Your task to perform on an android device: Open calendar and show me the second week of next month Image 0: 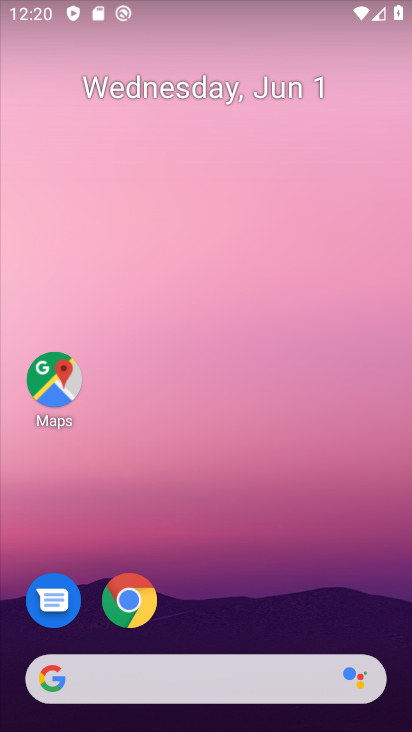
Step 0: press home button
Your task to perform on an android device: Open calendar and show me the second week of next month Image 1: 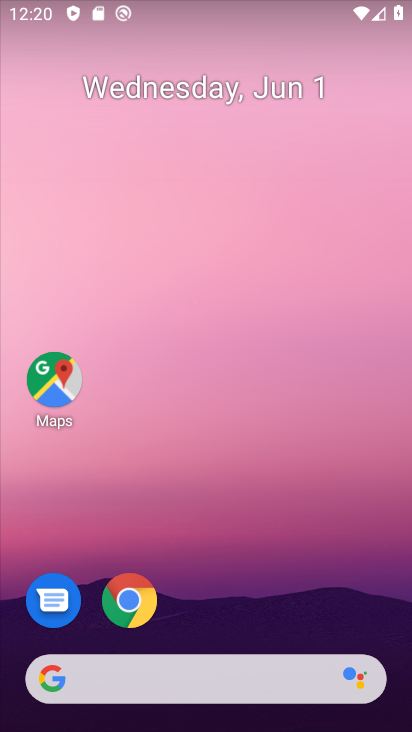
Step 1: drag from (256, 288) to (287, 9)
Your task to perform on an android device: Open calendar and show me the second week of next month Image 2: 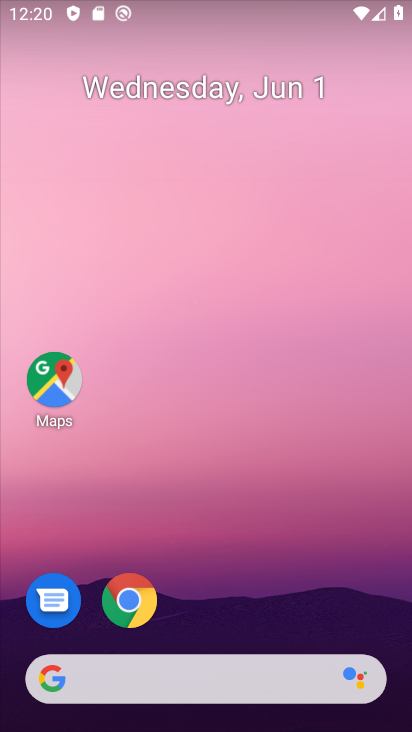
Step 2: drag from (210, 629) to (240, 17)
Your task to perform on an android device: Open calendar and show me the second week of next month Image 3: 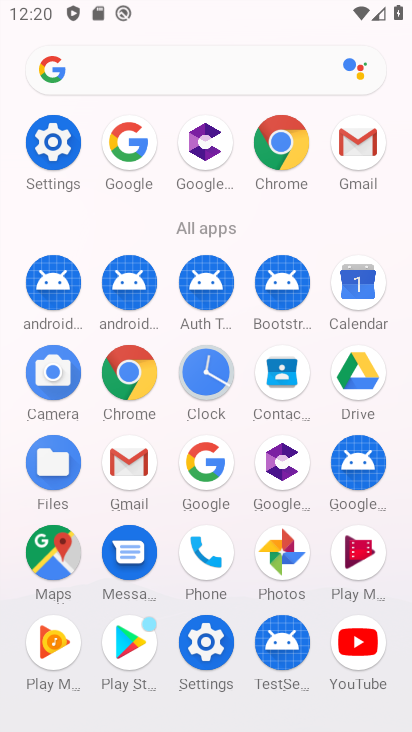
Step 3: click (355, 279)
Your task to perform on an android device: Open calendar and show me the second week of next month Image 4: 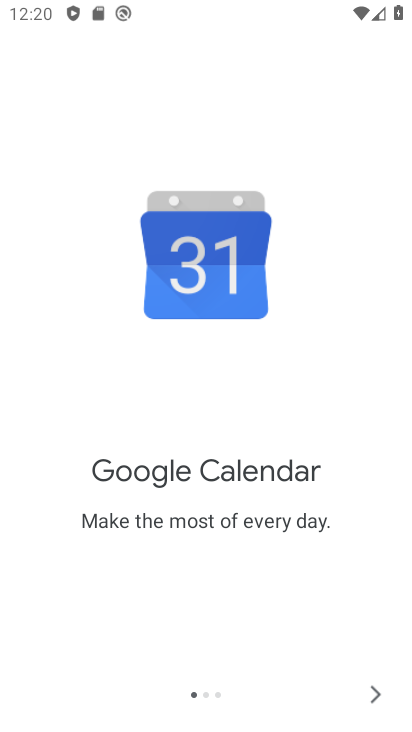
Step 4: click (374, 694)
Your task to perform on an android device: Open calendar and show me the second week of next month Image 5: 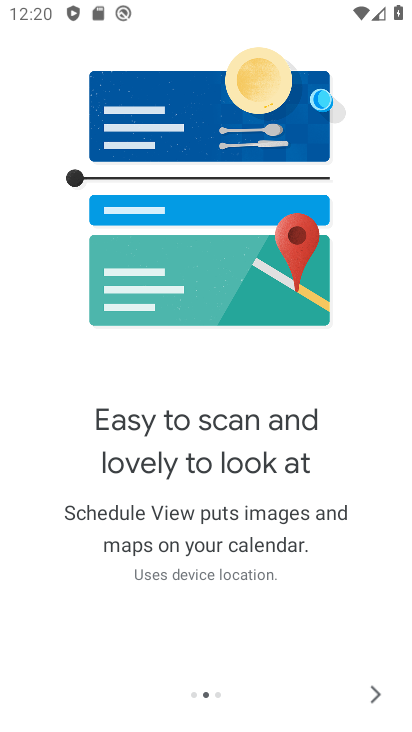
Step 5: click (374, 694)
Your task to perform on an android device: Open calendar and show me the second week of next month Image 6: 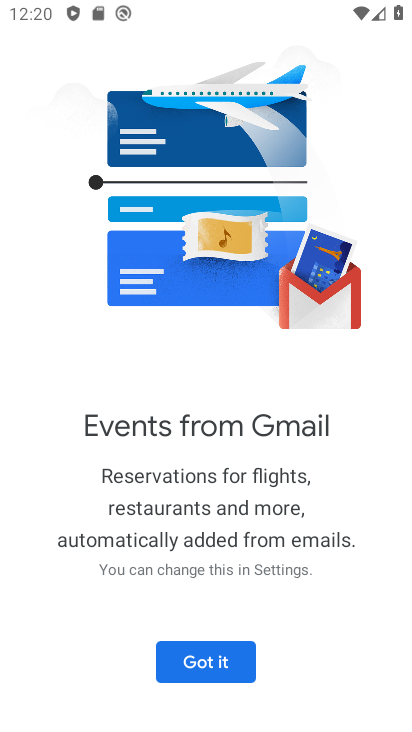
Step 6: click (191, 653)
Your task to perform on an android device: Open calendar and show me the second week of next month Image 7: 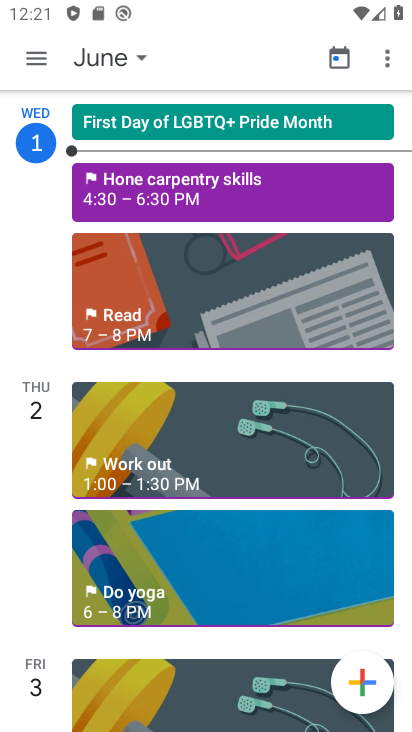
Step 7: click (27, 56)
Your task to perform on an android device: Open calendar and show me the second week of next month Image 8: 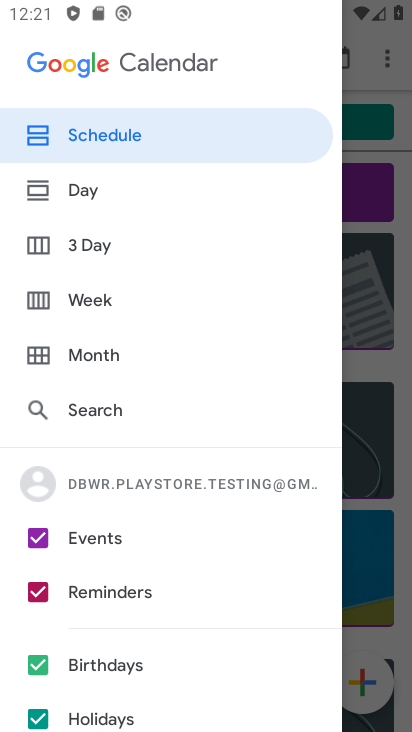
Step 8: click (76, 291)
Your task to perform on an android device: Open calendar and show me the second week of next month Image 9: 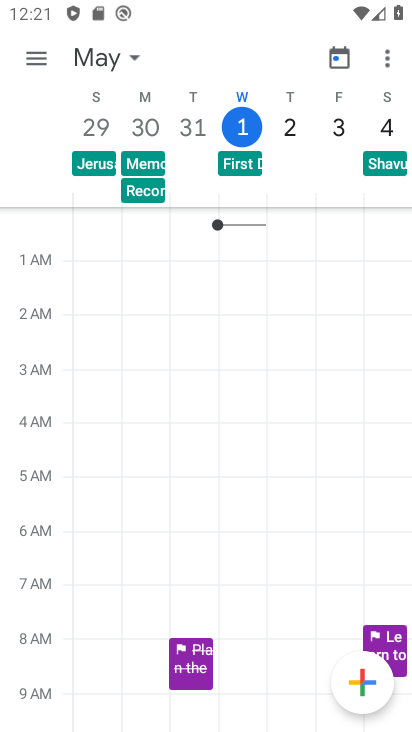
Step 9: drag from (363, 124) to (37, 116)
Your task to perform on an android device: Open calendar and show me the second week of next month Image 10: 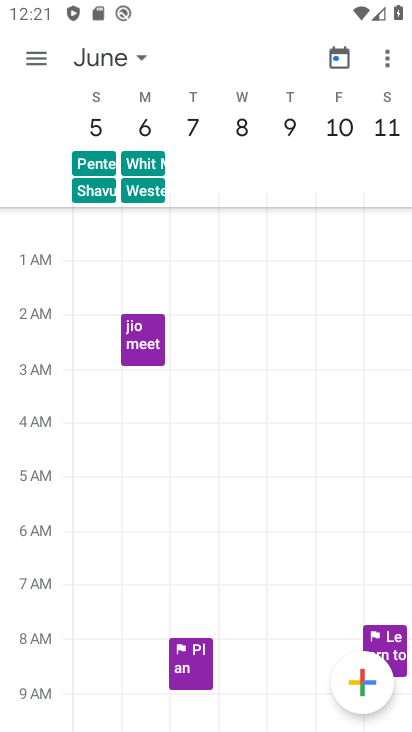
Step 10: click (97, 122)
Your task to perform on an android device: Open calendar and show me the second week of next month Image 11: 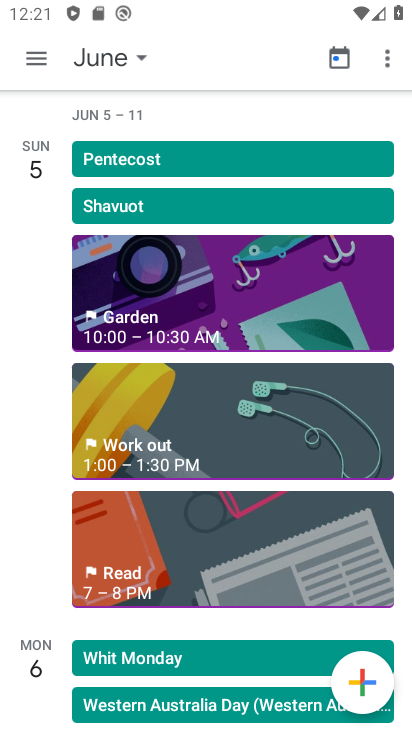
Step 11: task complete